Your task to perform on an android device: Open Google Maps Image 0: 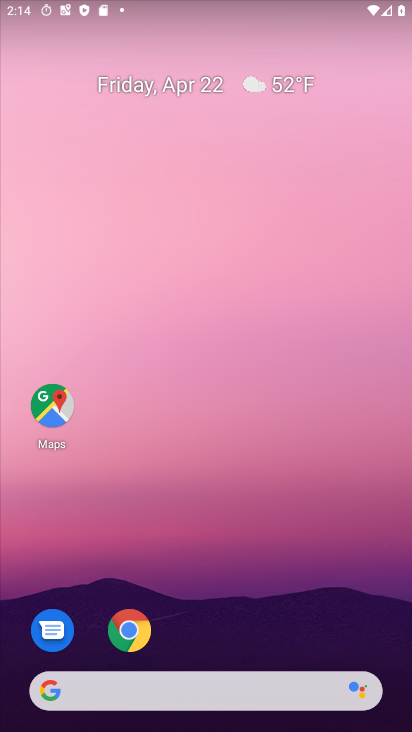
Step 0: click (36, 408)
Your task to perform on an android device: Open Google Maps Image 1: 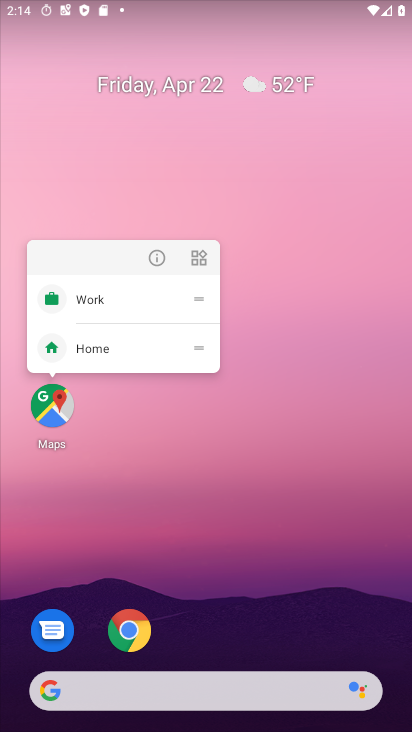
Step 1: click (45, 406)
Your task to perform on an android device: Open Google Maps Image 2: 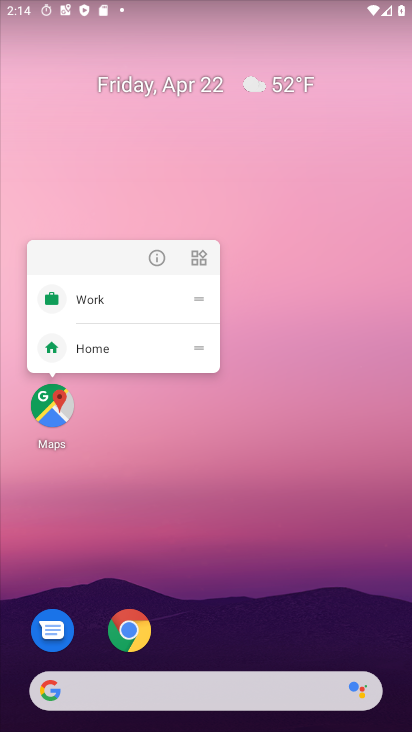
Step 2: click (45, 406)
Your task to perform on an android device: Open Google Maps Image 3: 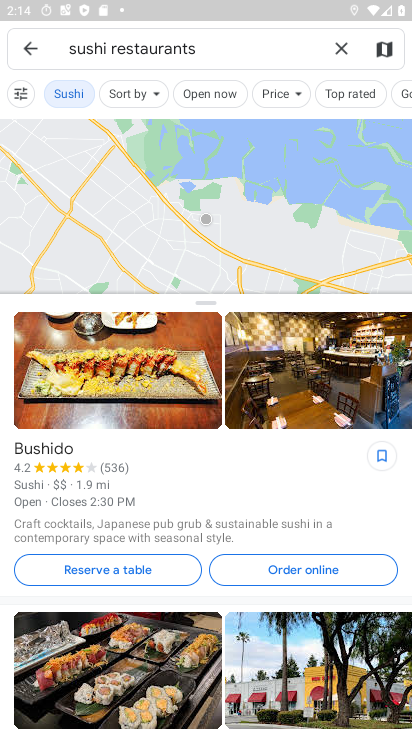
Step 3: click (338, 40)
Your task to perform on an android device: Open Google Maps Image 4: 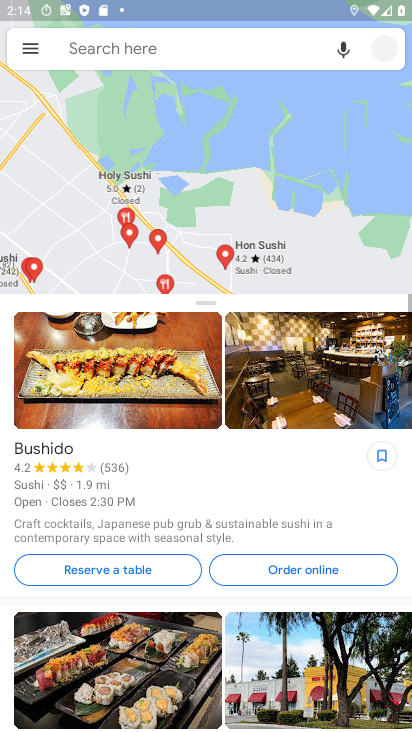
Step 4: click (87, 46)
Your task to perform on an android device: Open Google Maps Image 5: 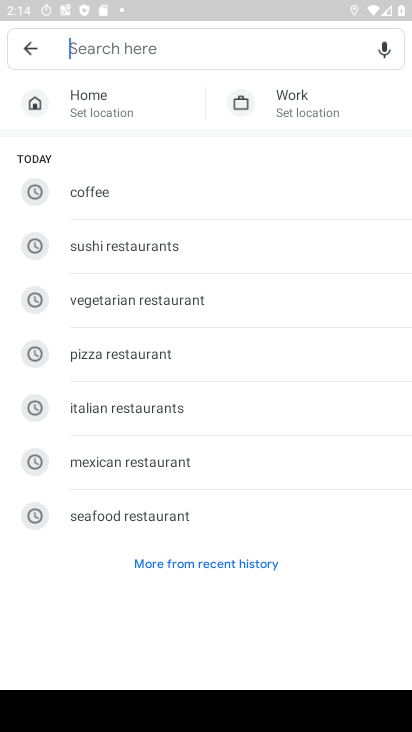
Step 5: click (26, 45)
Your task to perform on an android device: Open Google Maps Image 6: 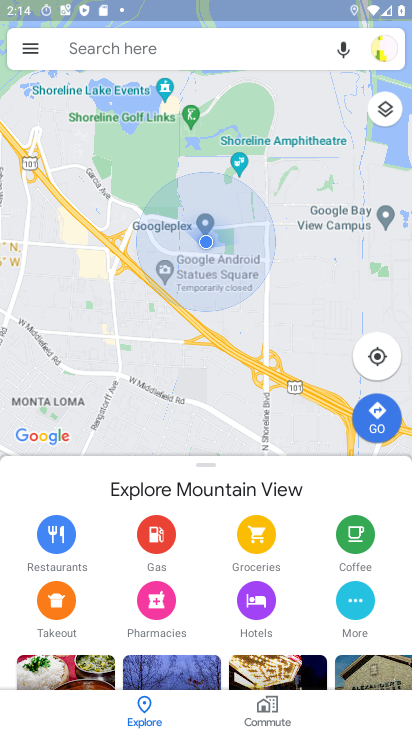
Step 6: task complete